Your task to perform on an android device: check android version Image 0: 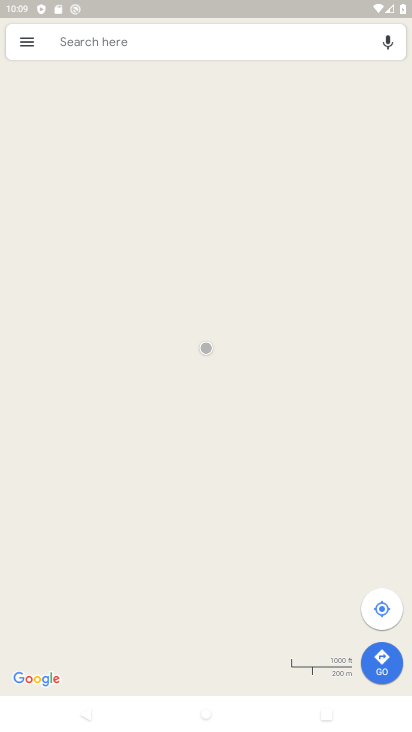
Step 0: press home button
Your task to perform on an android device: check android version Image 1: 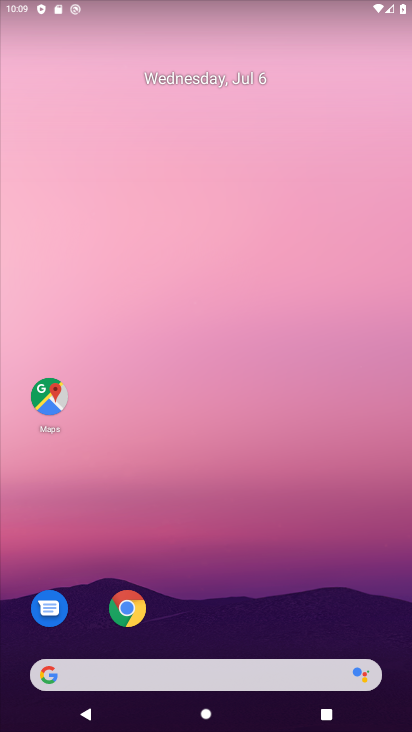
Step 1: drag from (215, 632) to (153, 209)
Your task to perform on an android device: check android version Image 2: 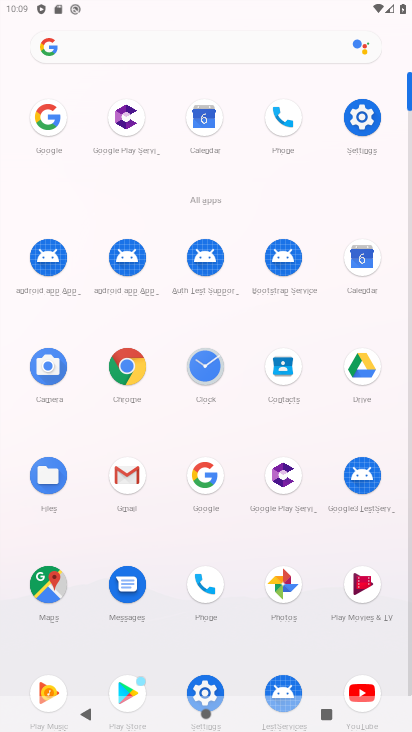
Step 2: click (365, 113)
Your task to perform on an android device: check android version Image 3: 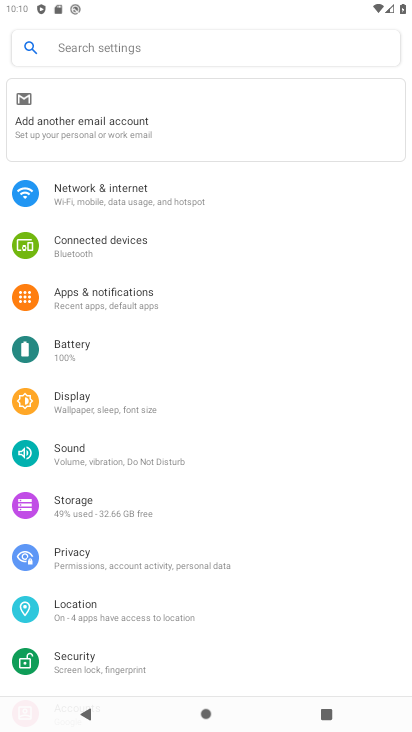
Step 3: drag from (203, 525) to (153, 184)
Your task to perform on an android device: check android version Image 4: 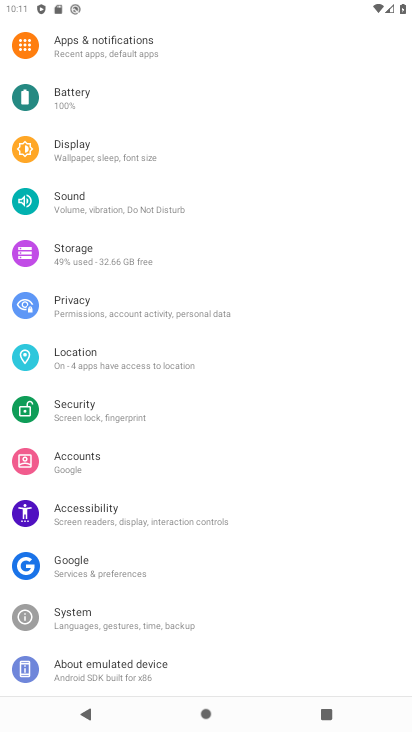
Step 4: click (115, 657)
Your task to perform on an android device: check android version Image 5: 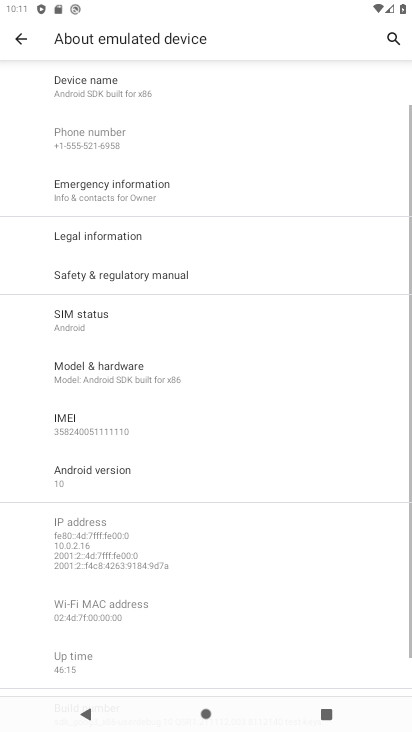
Step 5: click (117, 470)
Your task to perform on an android device: check android version Image 6: 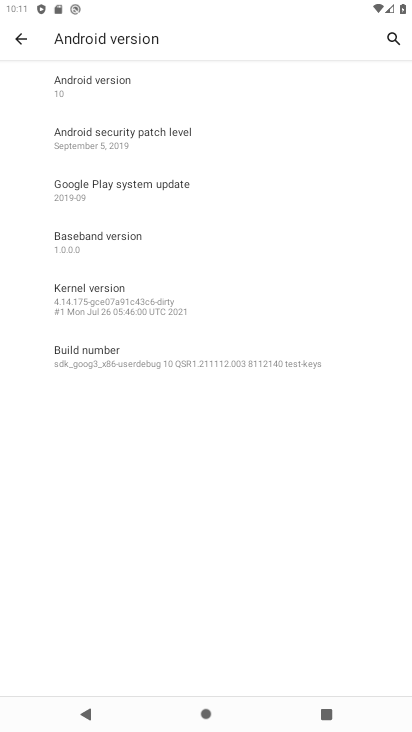
Step 6: click (99, 72)
Your task to perform on an android device: check android version Image 7: 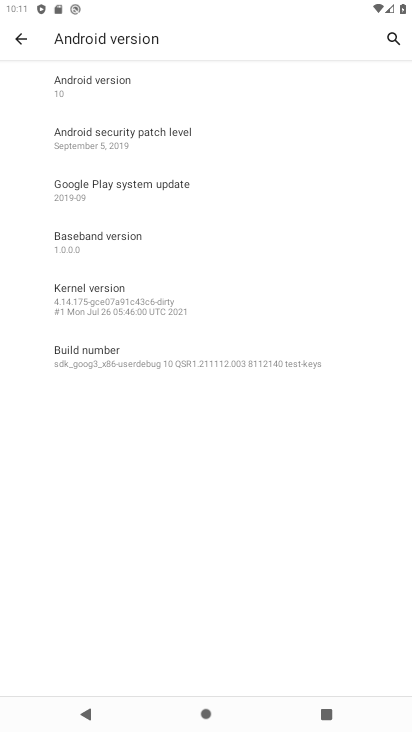
Step 7: task complete